Your task to perform on an android device: turn off priority inbox in the gmail app Image 0: 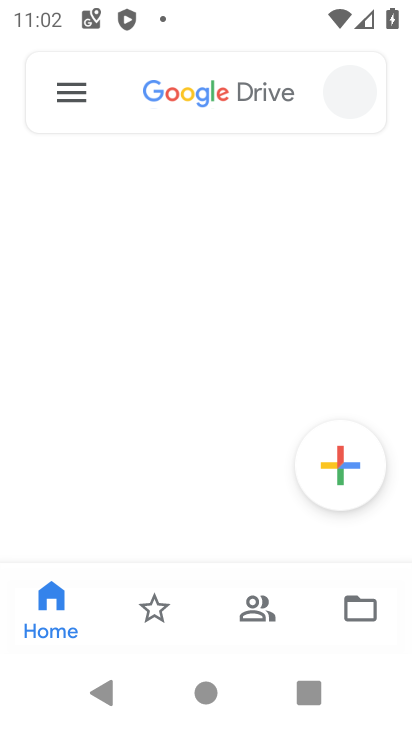
Step 0: drag from (207, 565) to (146, 41)
Your task to perform on an android device: turn off priority inbox in the gmail app Image 1: 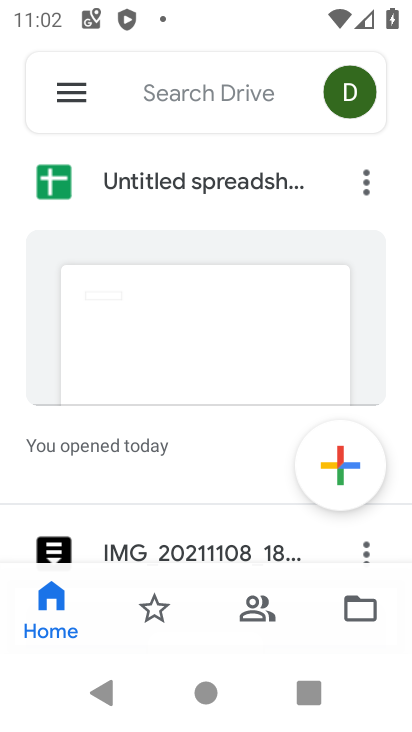
Step 1: press home button
Your task to perform on an android device: turn off priority inbox in the gmail app Image 2: 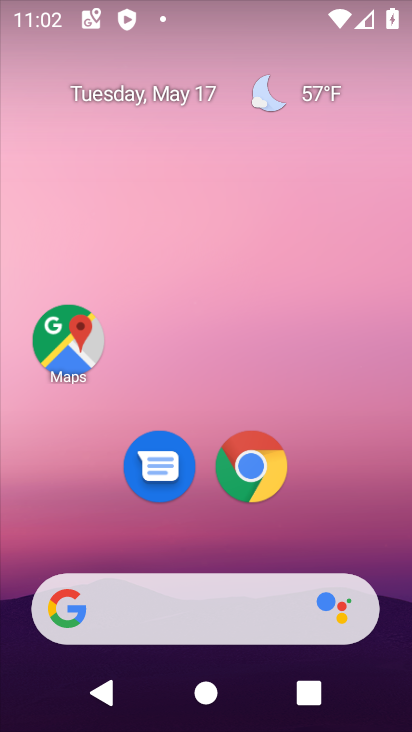
Step 2: drag from (218, 561) to (159, 72)
Your task to perform on an android device: turn off priority inbox in the gmail app Image 3: 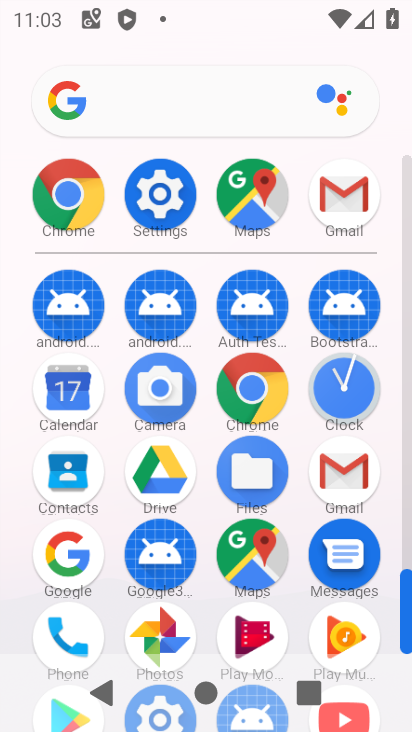
Step 3: click (337, 452)
Your task to perform on an android device: turn off priority inbox in the gmail app Image 4: 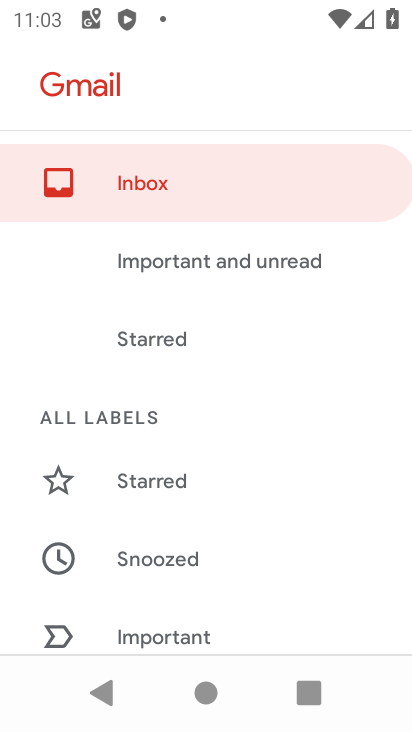
Step 4: drag from (246, 509) to (190, 41)
Your task to perform on an android device: turn off priority inbox in the gmail app Image 5: 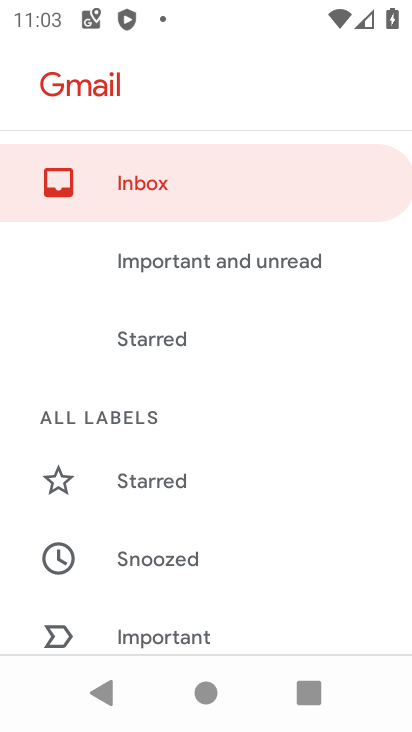
Step 5: drag from (179, 551) to (136, 0)
Your task to perform on an android device: turn off priority inbox in the gmail app Image 6: 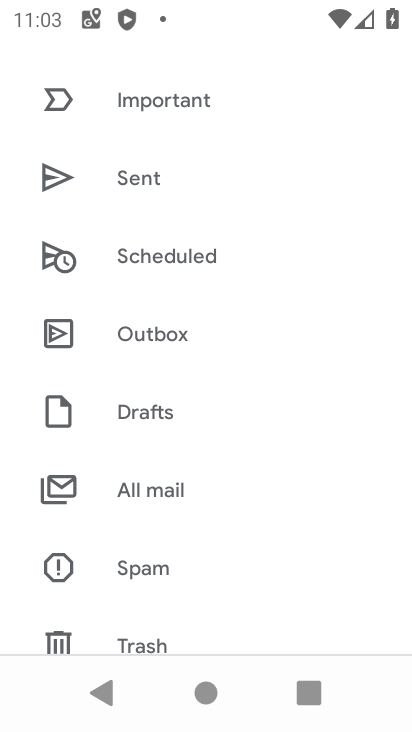
Step 6: drag from (173, 580) to (161, 179)
Your task to perform on an android device: turn off priority inbox in the gmail app Image 7: 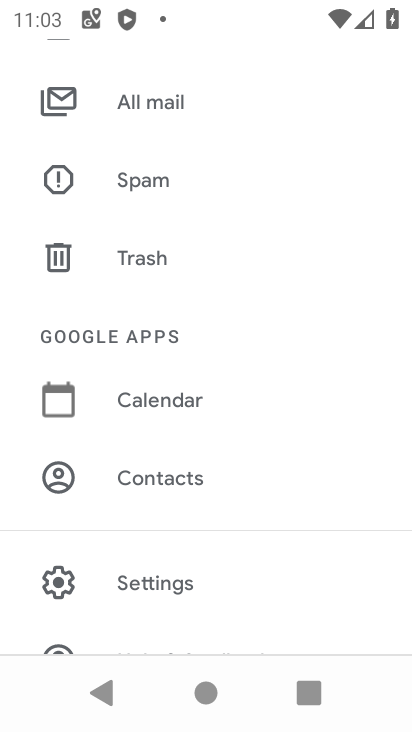
Step 7: drag from (147, 527) to (149, 244)
Your task to perform on an android device: turn off priority inbox in the gmail app Image 8: 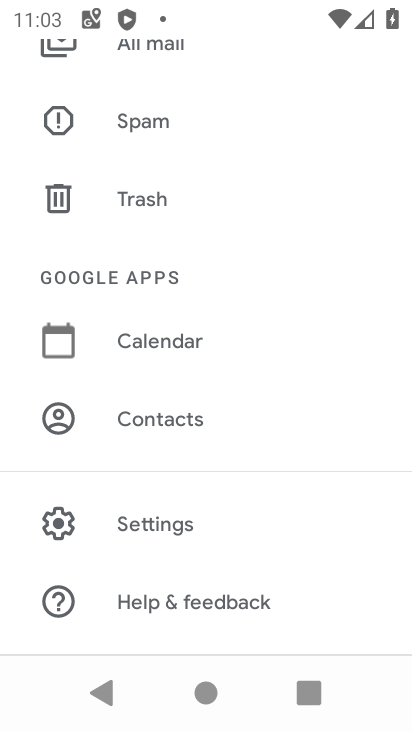
Step 8: click (156, 523)
Your task to perform on an android device: turn off priority inbox in the gmail app Image 9: 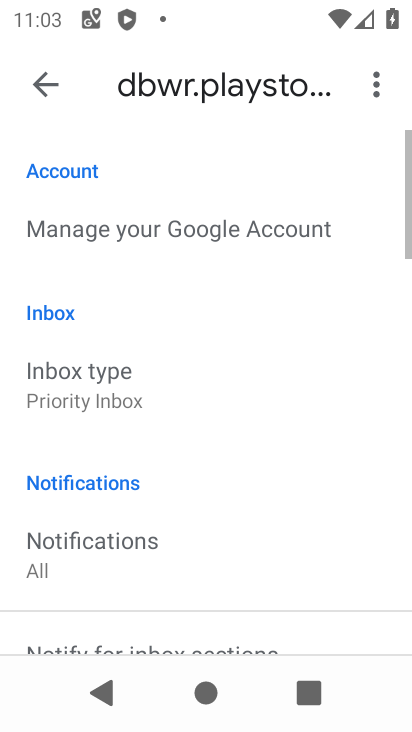
Step 9: drag from (156, 523) to (152, 348)
Your task to perform on an android device: turn off priority inbox in the gmail app Image 10: 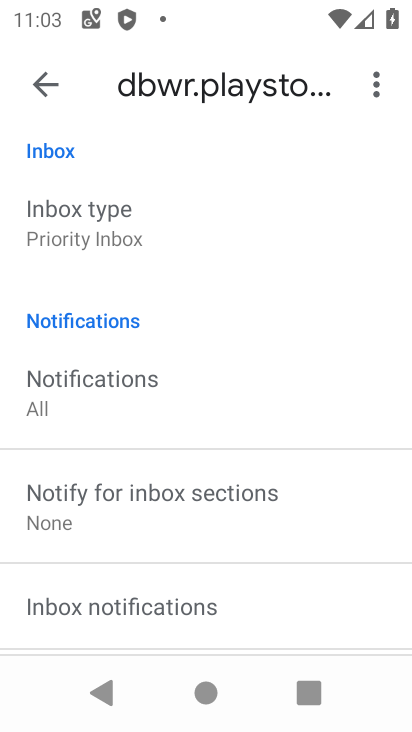
Step 10: click (105, 250)
Your task to perform on an android device: turn off priority inbox in the gmail app Image 11: 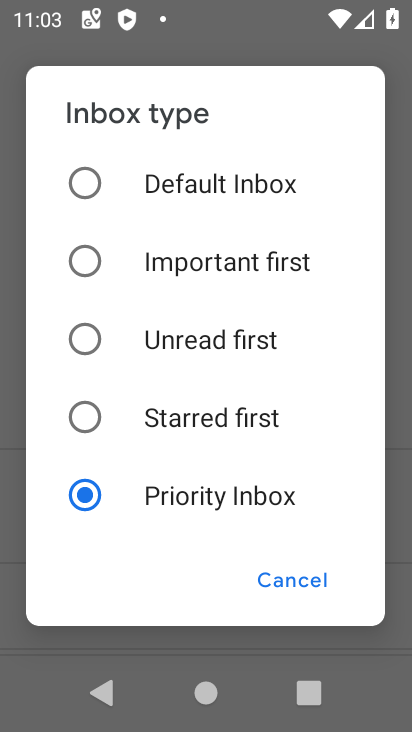
Step 11: click (135, 208)
Your task to perform on an android device: turn off priority inbox in the gmail app Image 12: 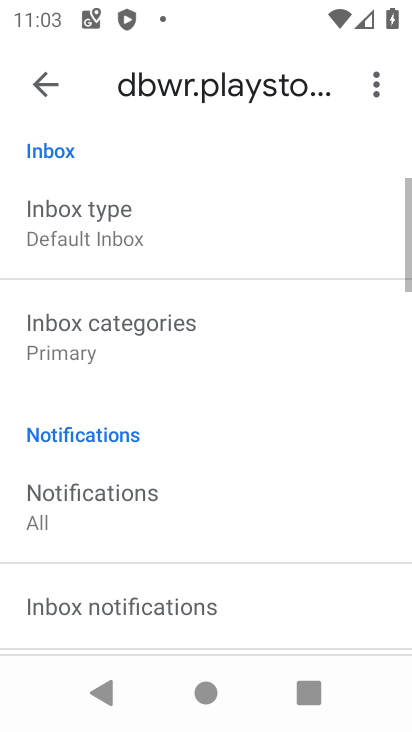
Step 12: task complete